Your task to perform on an android device: Do I have any events tomorrow? Image 0: 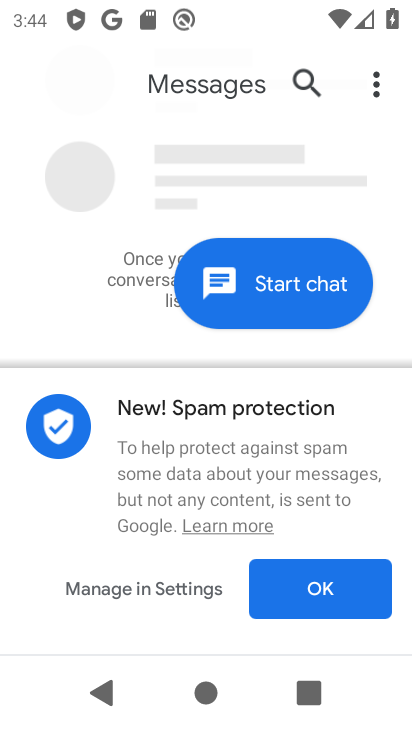
Step 0: press home button
Your task to perform on an android device: Do I have any events tomorrow? Image 1: 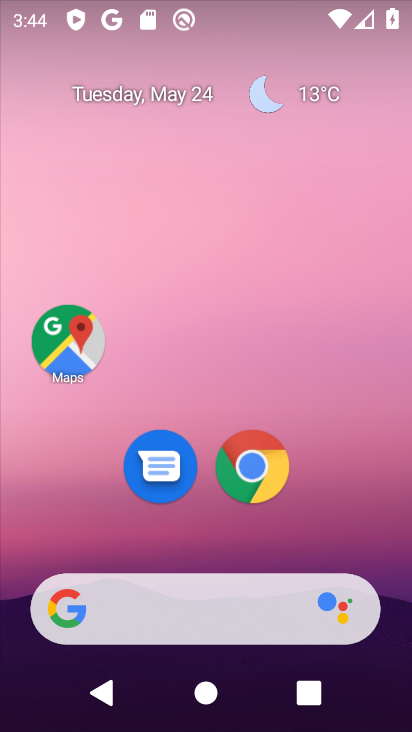
Step 1: drag from (336, 468) to (272, 101)
Your task to perform on an android device: Do I have any events tomorrow? Image 2: 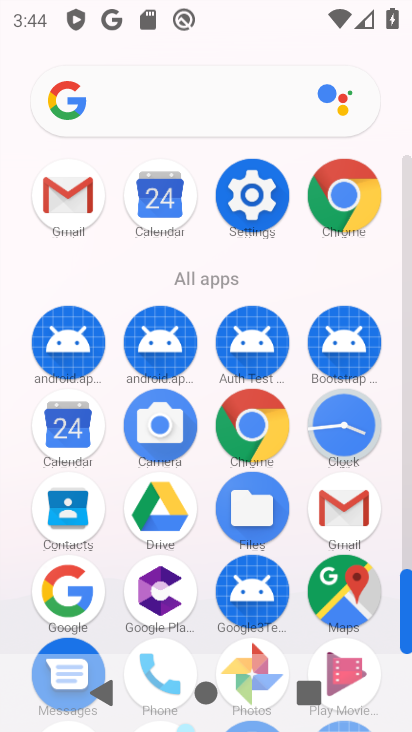
Step 2: click (158, 193)
Your task to perform on an android device: Do I have any events tomorrow? Image 3: 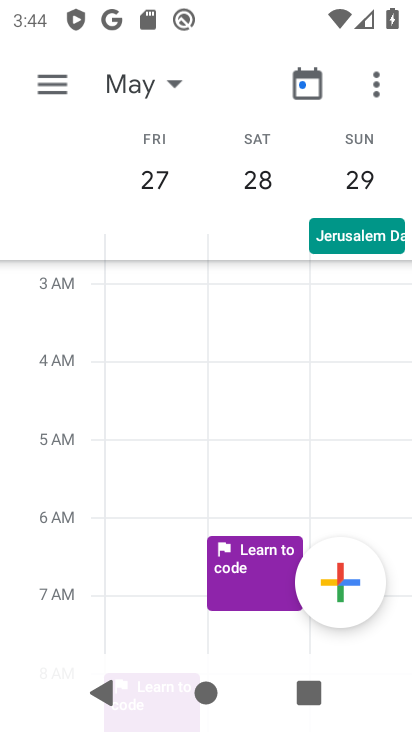
Step 3: click (253, 152)
Your task to perform on an android device: Do I have any events tomorrow? Image 4: 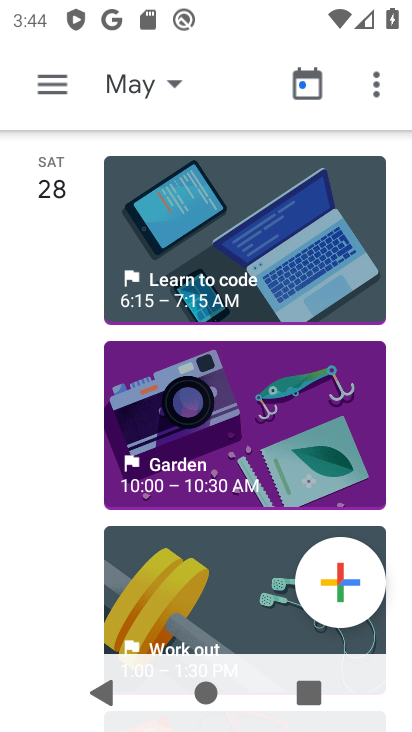
Step 4: click (145, 78)
Your task to perform on an android device: Do I have any events tomorrow? Image 5: 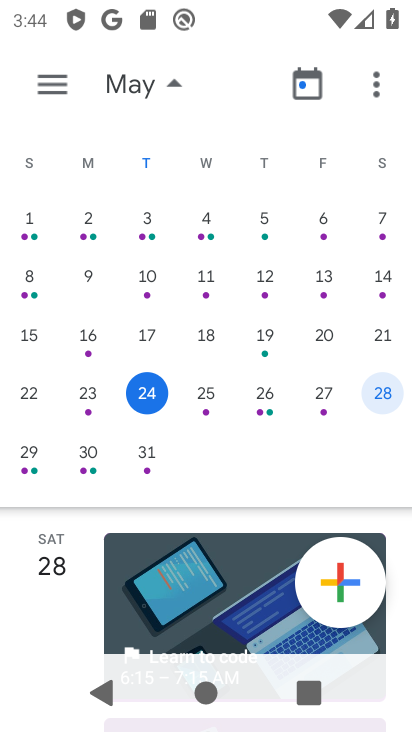
Step 5: click (211, 387)
Your task to perform on an android device: Do I have any events tomorrow? Image 6: 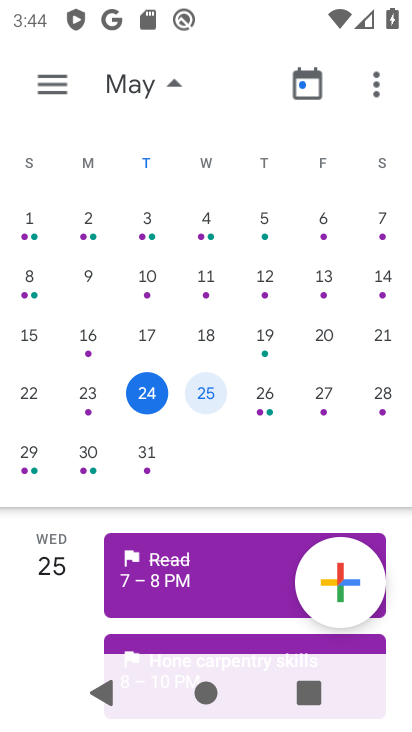
Step 6: click (201, 385)
Your task to perform on an android device: Do I have any events tomorrow? Image 7: 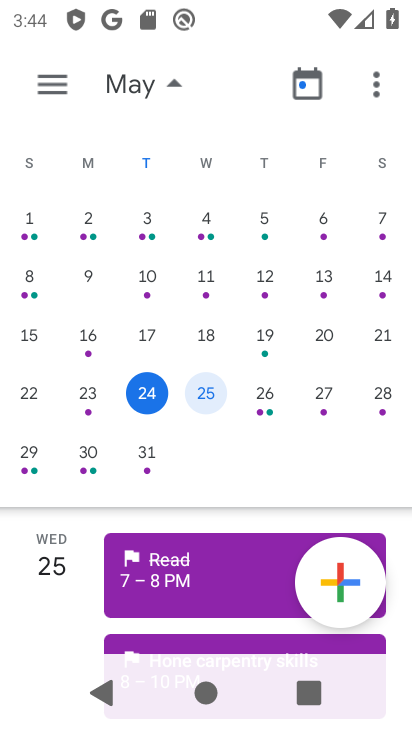
Step 7: task complete